Your task to perform on an android device: turn off translation in the chrome app Image 0: 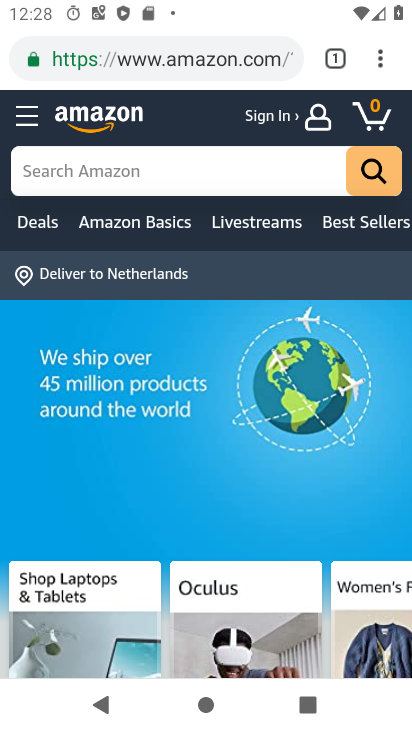
Step 0: press home button
Your task to perform on an android device: turn off translation in the chrome app Image 1: 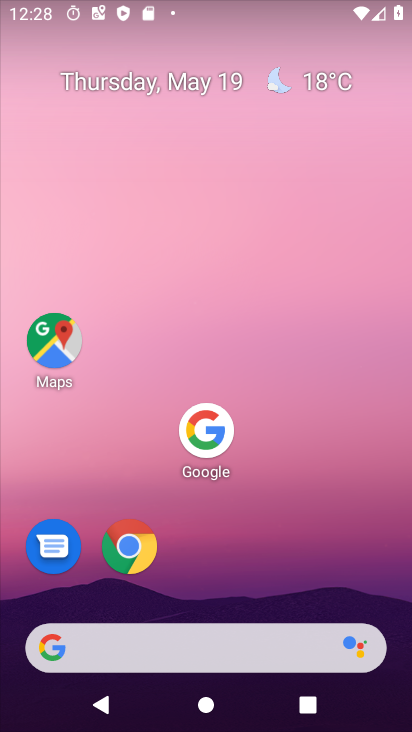
Step 1: click (124, 546)
Your task to perform on an android device: turn off translation in the chrome app Image 2: 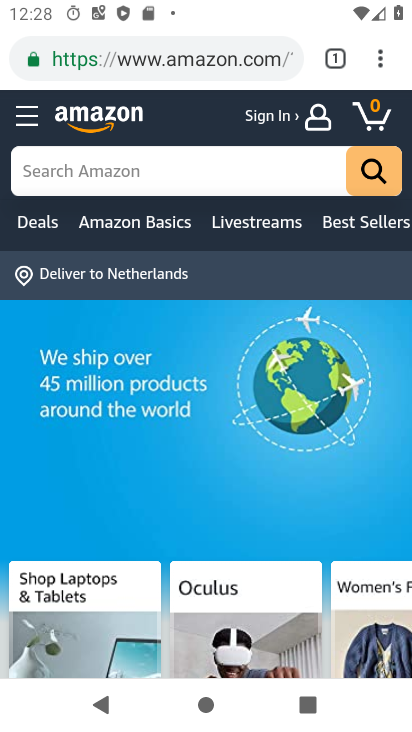
Step 2: click (369, 57)
Your task to perform on an android device: turn off translation in the chrome app Image 3: 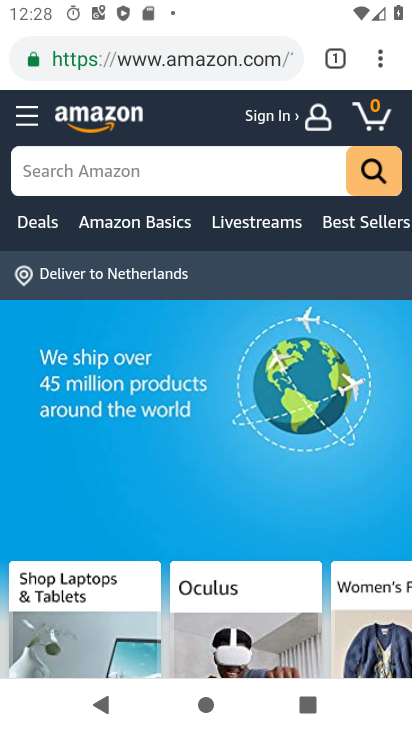
Step 3: click (372, 58)
Your task to perform on an android device: turn off translation in the chrome app Image 4: 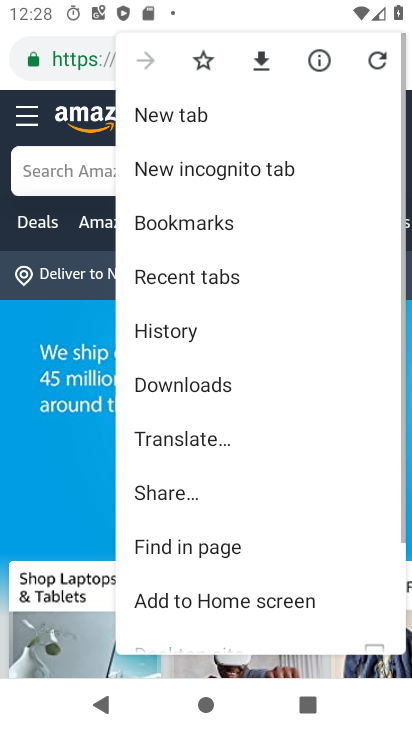
Step 4: drag from (221, 486) to (288, 29)
Your task to perform on an android device: turn off translation in the chrome app Image 5: 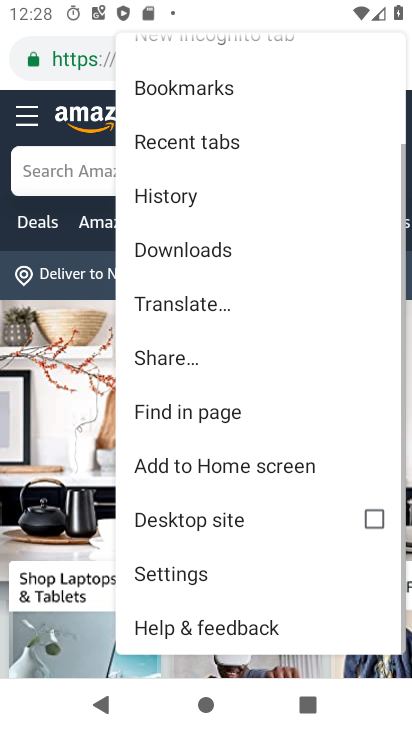
Step 5: click (182, 556)
Your task to perform on an android device: turn off translation in the chrome app Image 6: 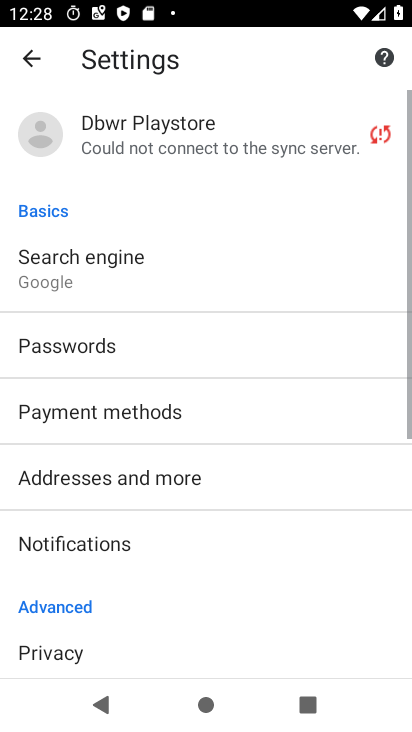
Step 6: drag from (214, 577) to (261, 41)
Your task to perform on an android device: turn off translation in the chrome app Image 7: 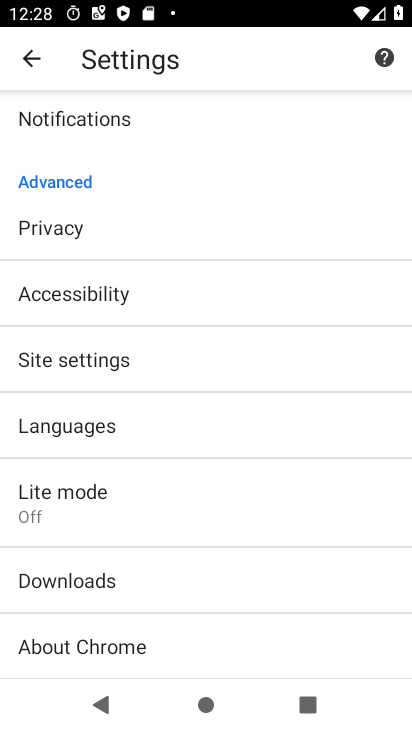
Step 7: drag from (209, 595) to (211, 233)
Your task to perform on an android device: turn off translation in the chrome app Image 8: 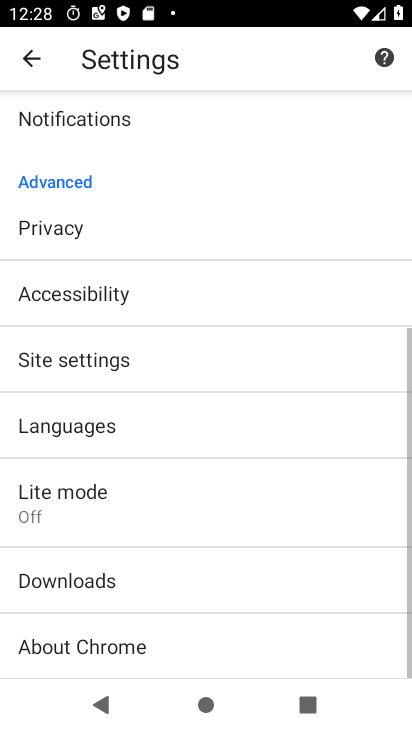
Step 8: click (101, 434)
Your task to perform on an android device: turn off translation in the chrome app Image 9: 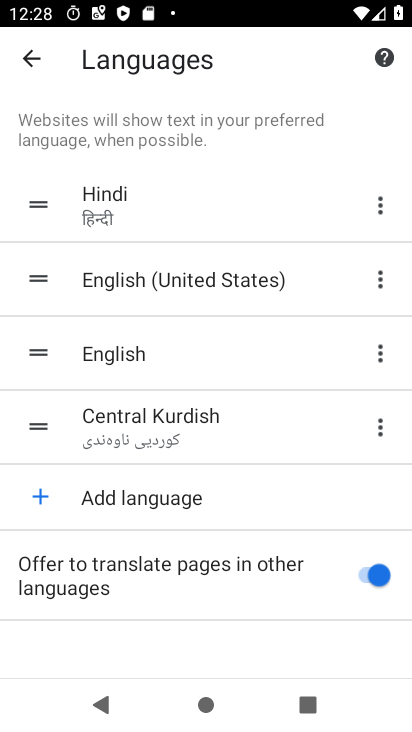
Step 9: click (376, 589)
Your task to perform on an android device: turn off translation in the chrome app Image 10: 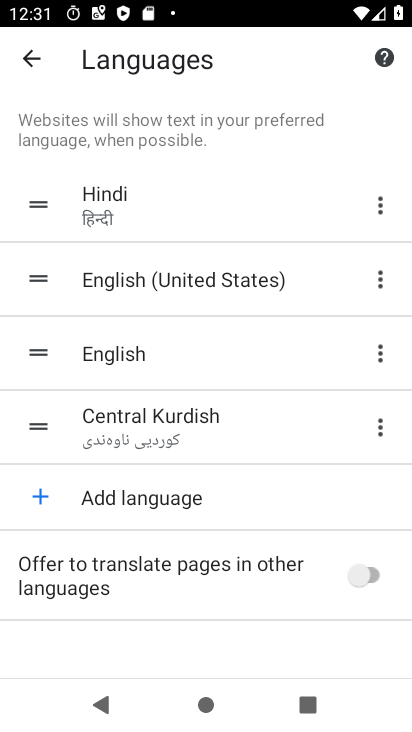
Step 10: task complete